Your task to perform on an android device: Check the weather Image 0: 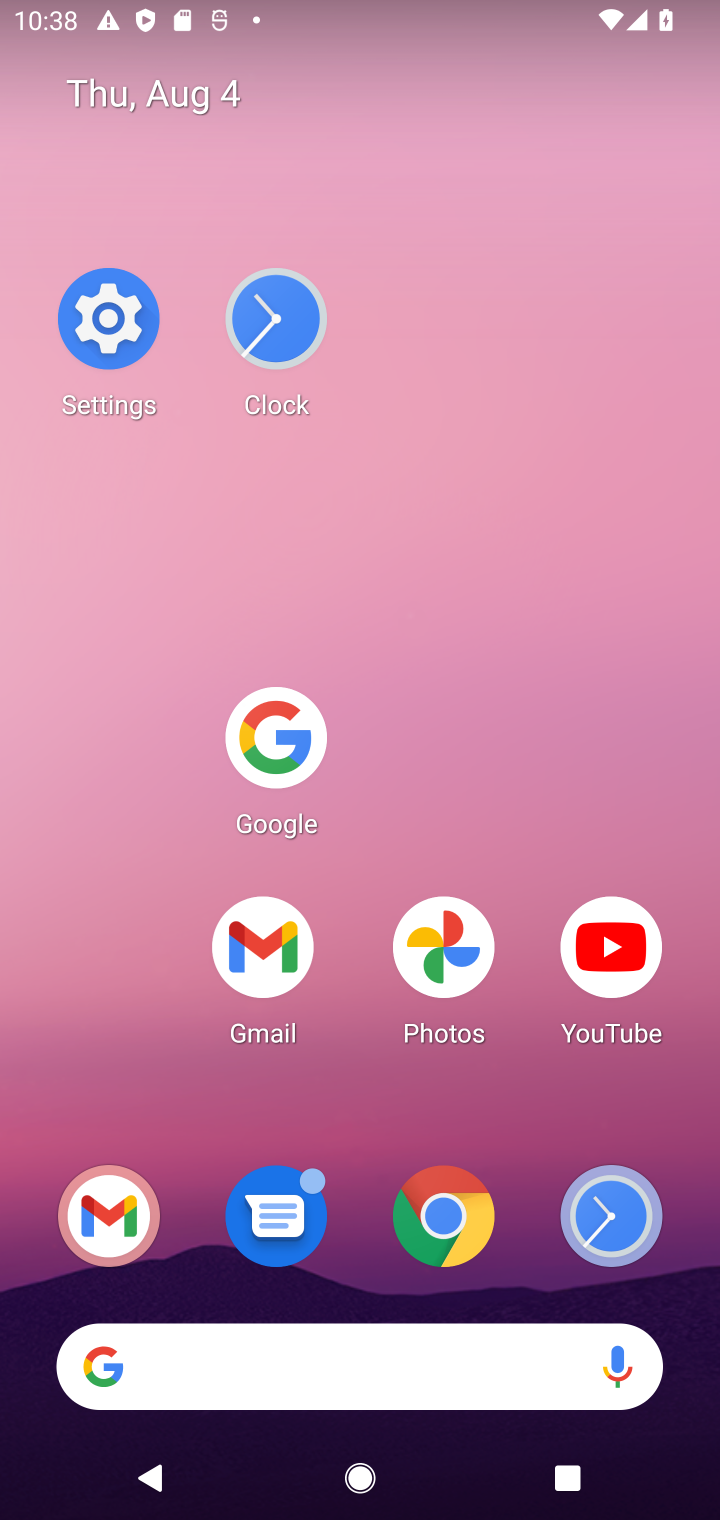
Step 0: click (271, 733)
Your task to perform on an android device: Check the weather Image 1: 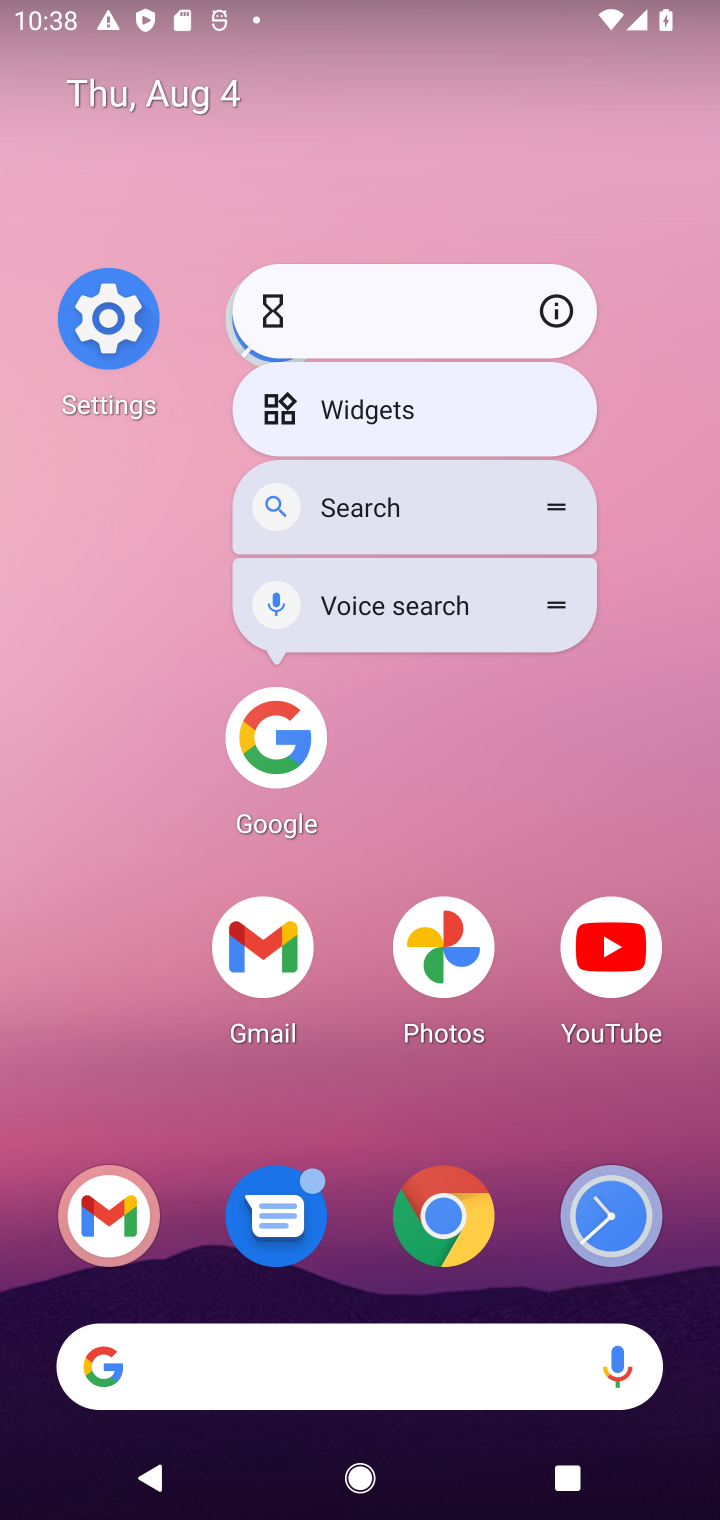
Step 1: click (271, 733)
Your task to perform on an android device: Check the weather Image 2: 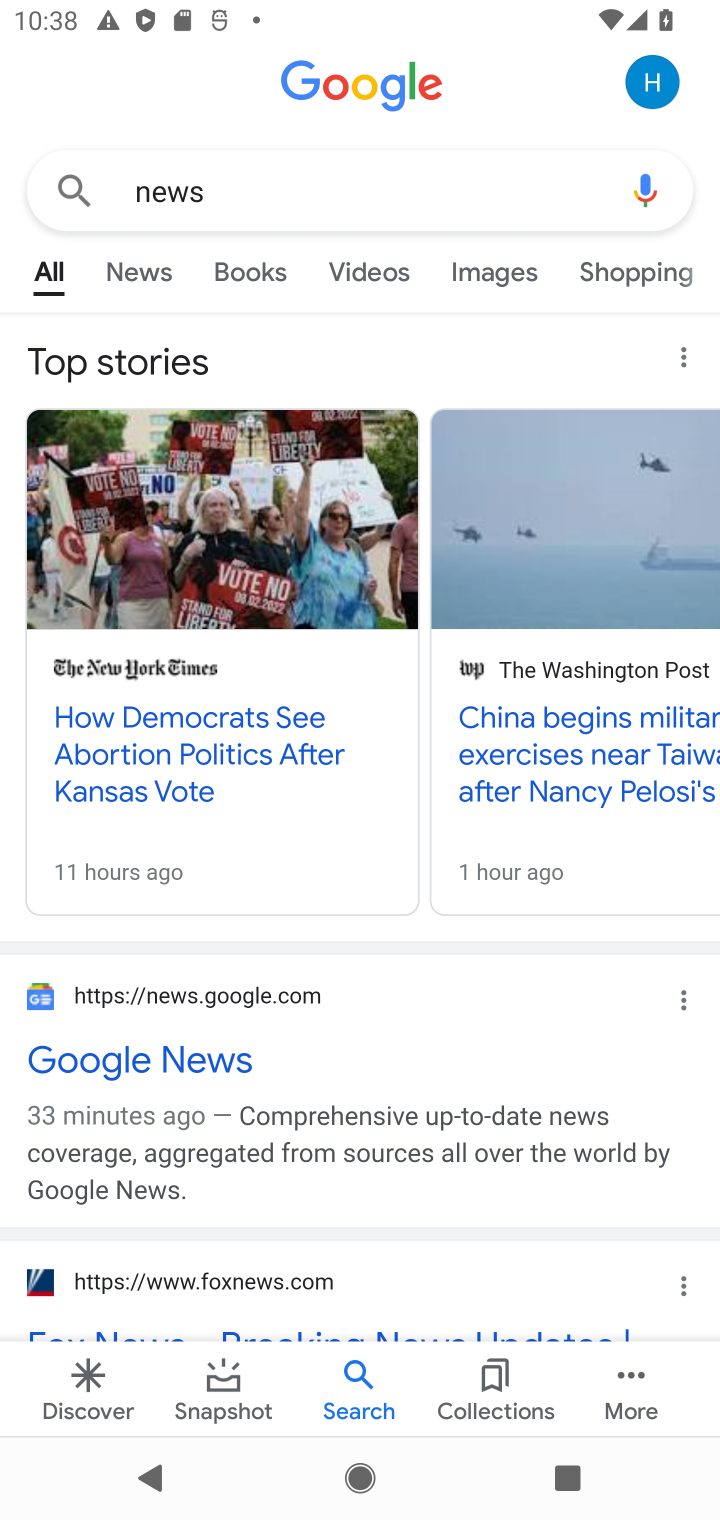
Step 2: click (279, 179)
Your task to perform on an android device: Check the weather Image 3: 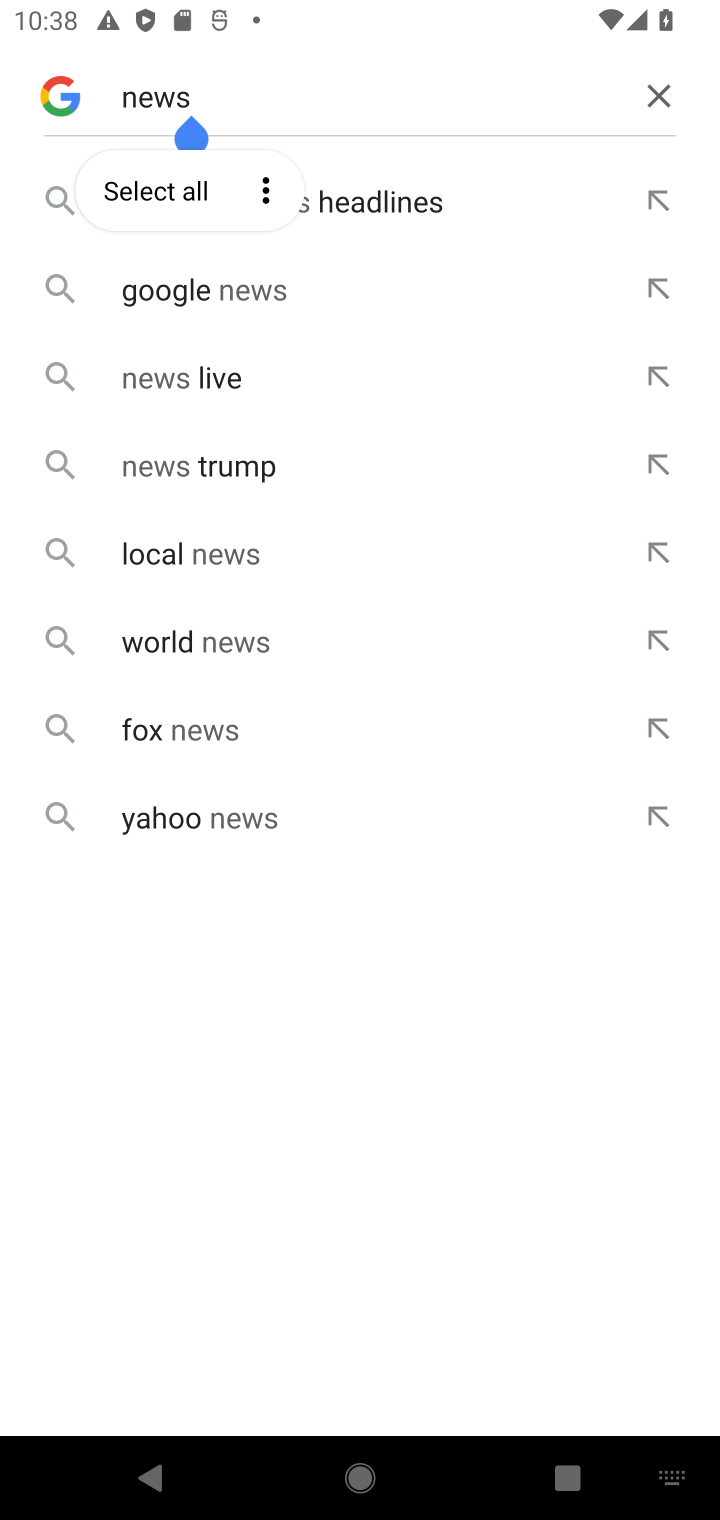
Step 3: click (653, 86)
Your task to perform on an android device: Check the weather Image 4: 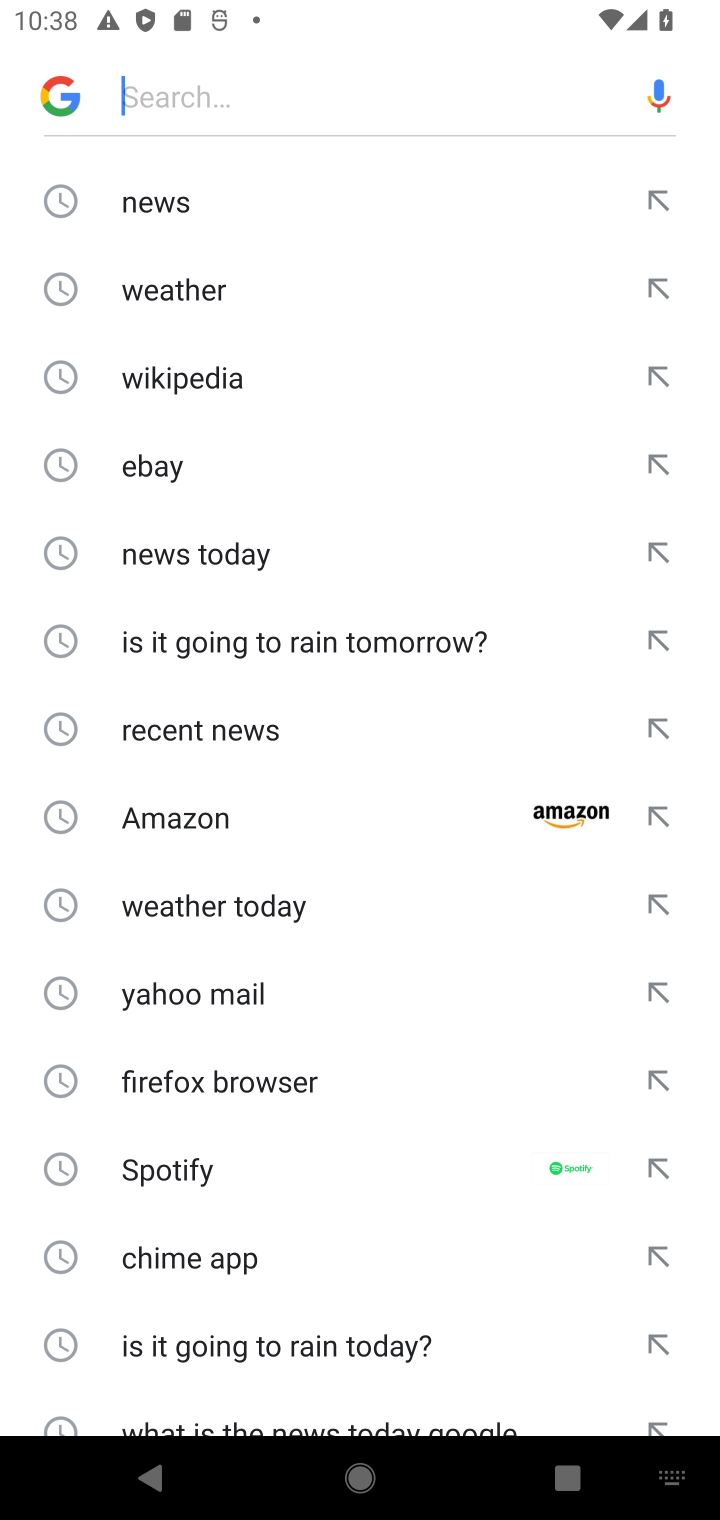
Step 4: click (278, 278)
Your task to perform on an android device: Check the weather Image 5: 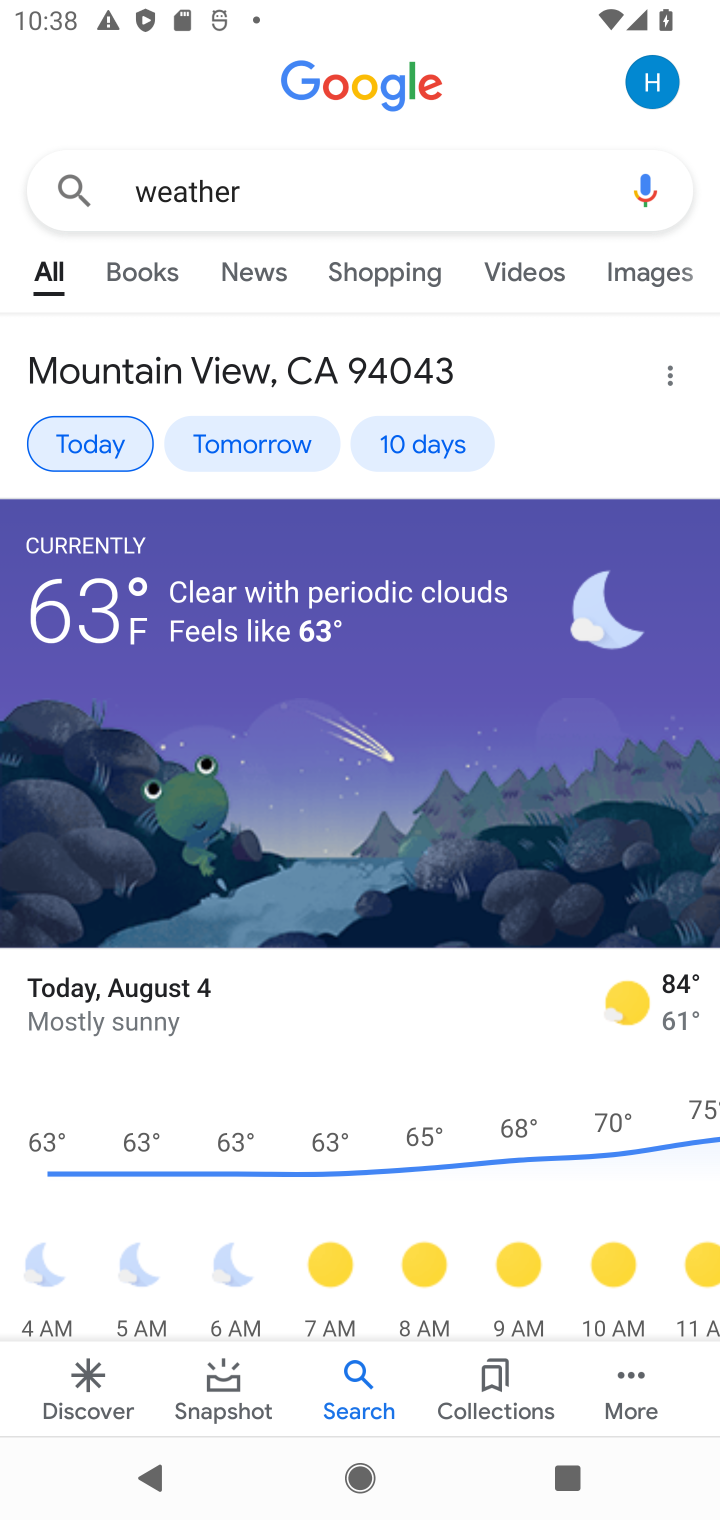
Step 5: task complete